Your task to perform on an android device: Search for razer blade on bestbuy, select the first entry, add it to the cart, then select checkout. Image 0: 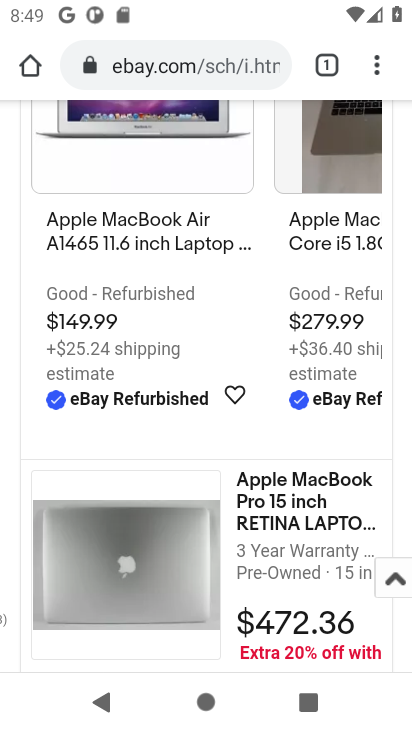
Step 0: click (263, 525)
Your task to perform on an android device: Search for razer blade on bestbuy, select the first entry, add it to the cart, then select checkout. Image 1: 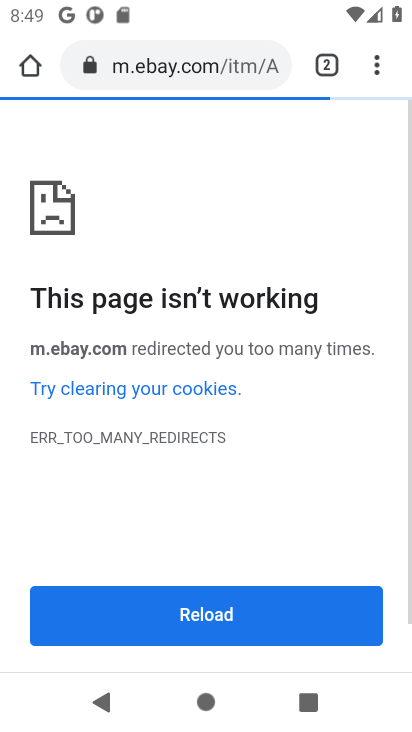
Step 1: click (209, 60)
Your task to perform on an android device: Search for razer blade on bestbuy, select the first entry, add it to the cart, then select checkout. Image 2: 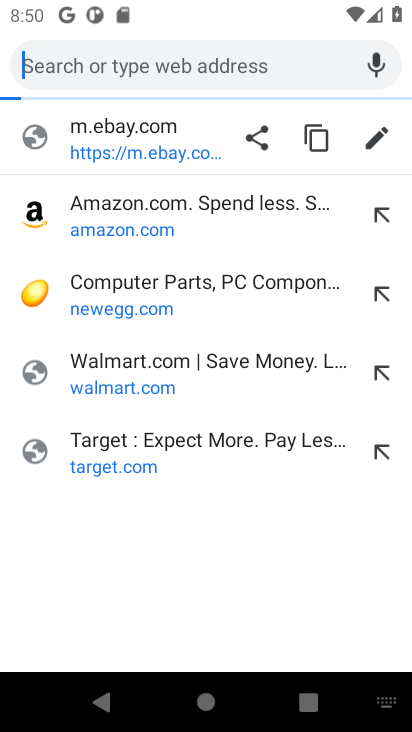
Step 2: type "bestbuy"
Your task to perform on an android device: Search for razer blade on bestbuy, select the first entry, add it to the cart, then select checkout. Image 3: 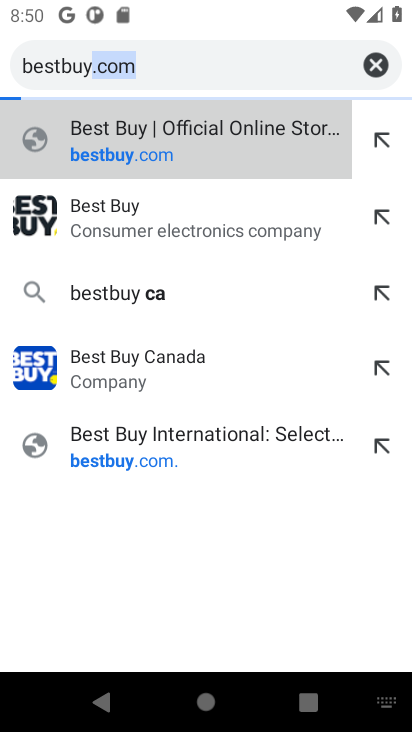
Step 3: press enter
Your task to perform on an android device: Search for razer blade on bestbuy, select the first entry, add it to the cart, then select checkout. Image 4: 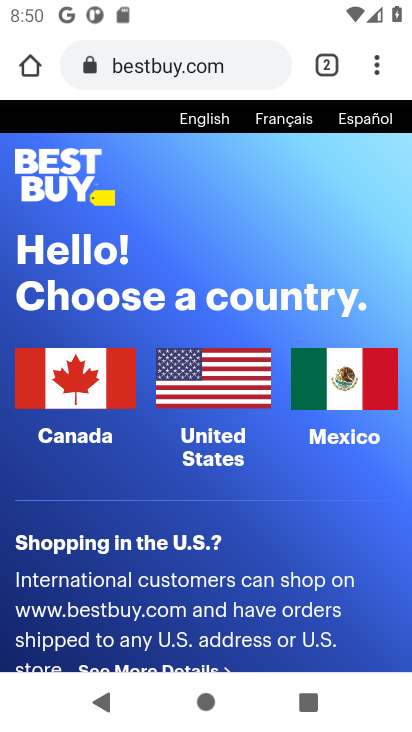
Step 4: click (227, 366)
Your task to perform on an android device: Search for razer blade on bestbuy, select the first entry, add it to the cart, then select checkout. Image 5: 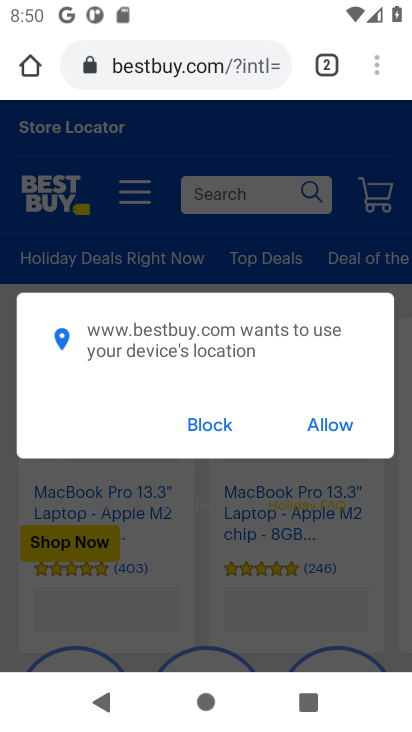
Step 5: click (212, 423)
Your task to perform on an android device: Search for razer blade on bestbuy, select the first entry, add it to the cart, then select checkout. Image 6: 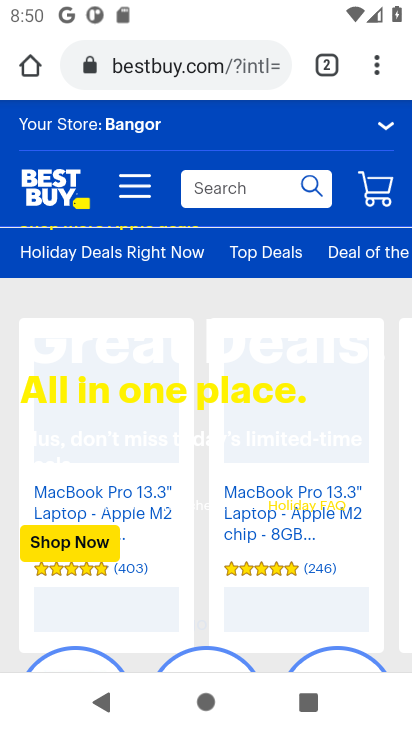
Step 6: click (307, 189)
Your task to perform on an android device: Search for razer blade on bestbuy, select the first entry, add it to the cart, then select checkout. Image 7: 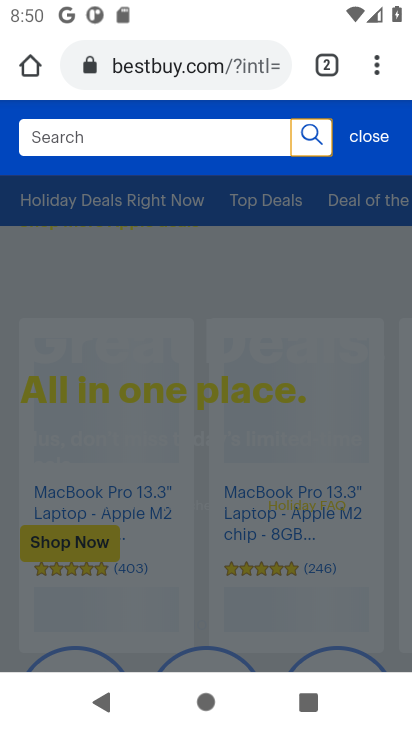
Step 7: type "razer blade"
Your task to perform on an android device: Search for razer blade on bestbuy, select the first entry, add it to the cart, then select checkout. Image 8: 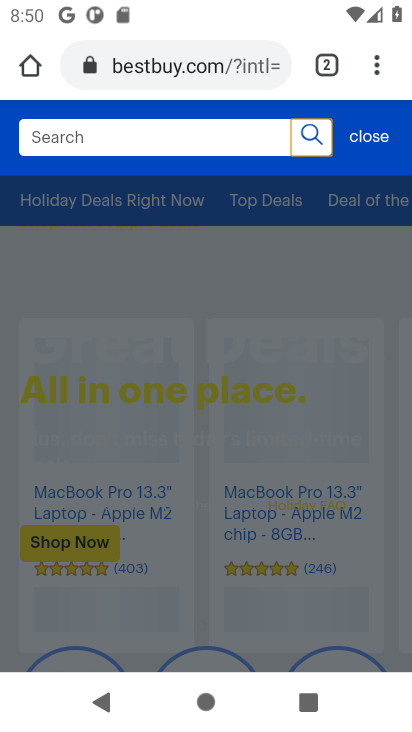
Step 8: press enter
Your task to perform on an android device: Search for razer blade on bestbuy, select the first entry, add it to the cart, then select checkout. Image 9: 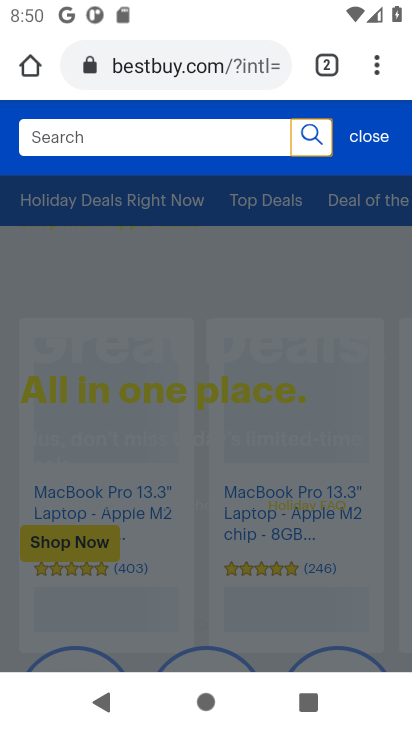
Step 9: click (243, 136)
Your task to perform on an android device: Search for razer blade on bestbuy, select the first entry, add it to the cart, then select checkout. Image 10: 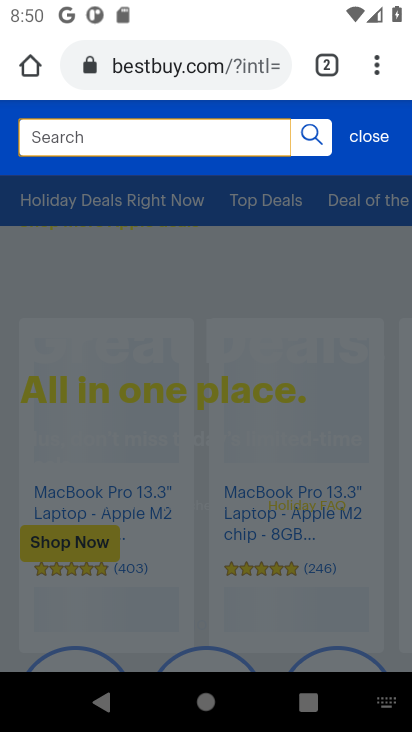
Step 10: type "razer blade"
Your task to perform on an android device: Search for razer blade on bestbuy, select the first entry, add it to the cart, then select checkout. Image 11: 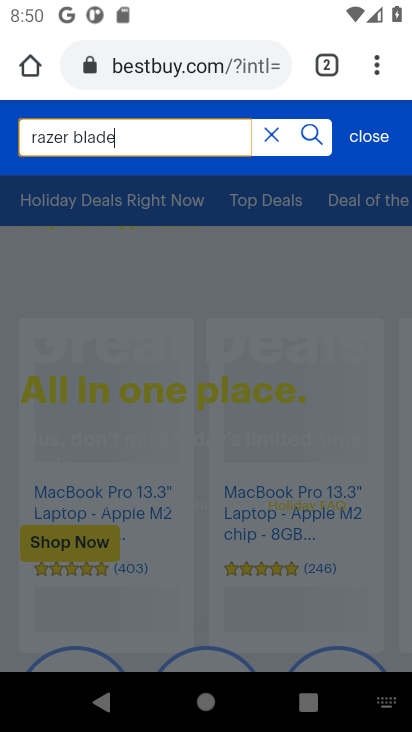
Step 11: press enter
Your task to perform on an android device: Search for razer blade on bestbuy, select the first entry, add it to the cart, then select checkout. Image 12: 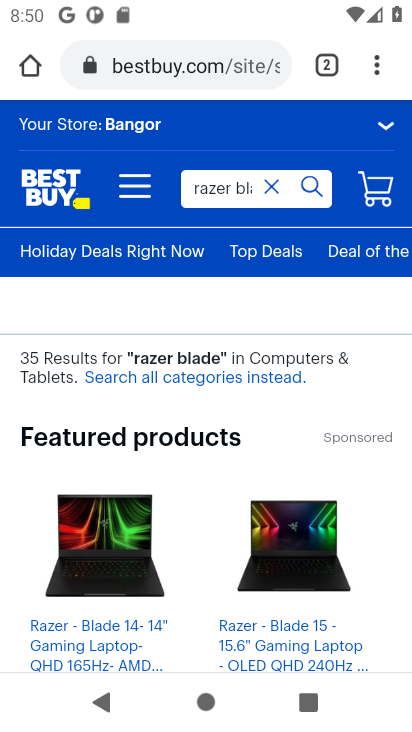
Step 12: click (127, 545)
Your task to perform on an android device: Search for razer blade on bestbuy, select the first entry, add it to the cart, then select checkout. Image 13: 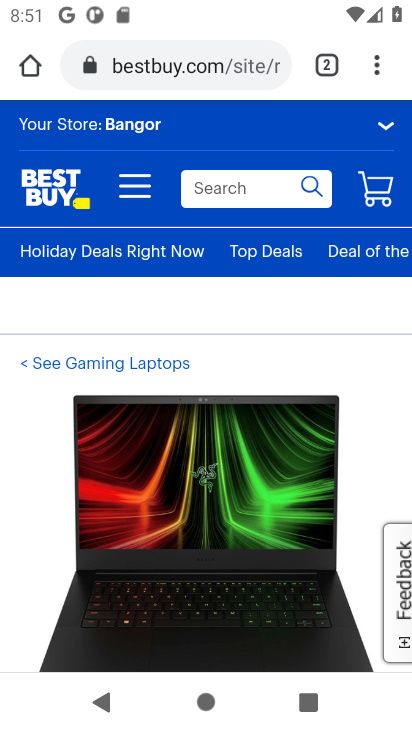
Step 13: drag from (285, 519) to (368, 56)
Your task to perform on an android device: Search for razer blade on bestbuy, select the first entry, add it to the cart, then select checkout. Image 14: 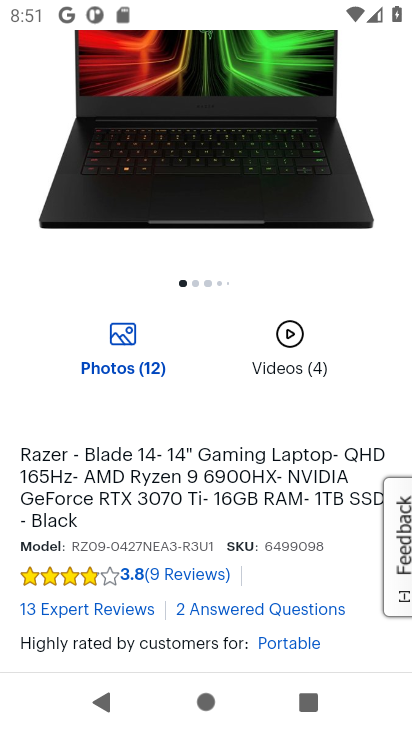
Step 14: drag from (306, 565) to (334, 195)
Your task to perform on an android device: Search for razer blade on bestbuy, select the first entry, add it to the cart, then select checkout. Image 15: 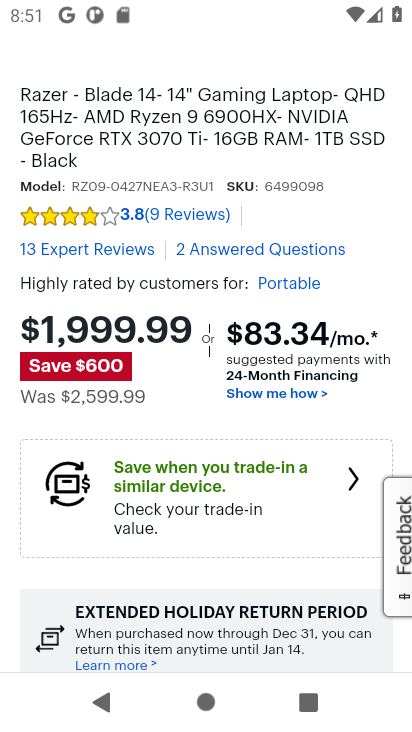
Step 15: drag from (323, 570) to (286, 90)
Your task to perform on an android device: Search for razer blade on bestbuy, select the first entry, add it to the cart, then select checkout. Image 16: 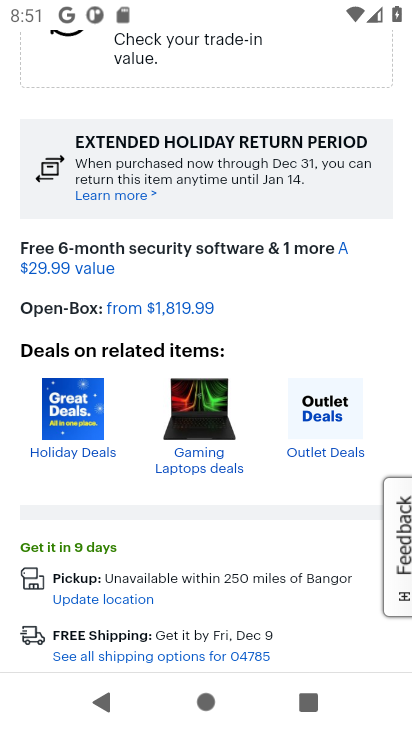
Step 16: drag from (298, 465) to (293, 86)
Your task to perform on an android device: Search for razer blade on bestbuy, select the first entry, add it to the cart, then select checkout. Image 17: 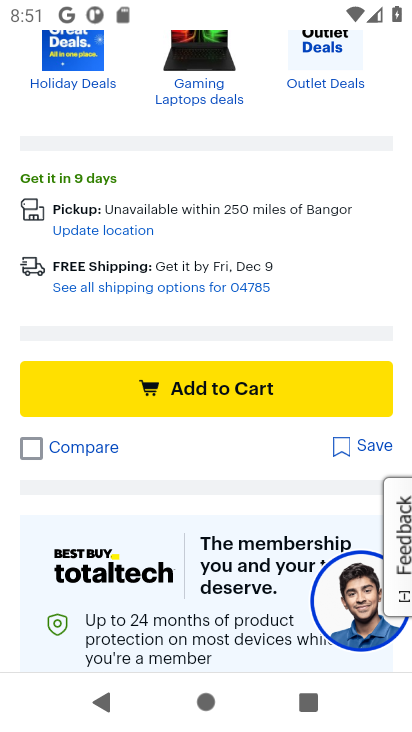
Step 17: click (249, 389)
Your task to perform on an android device: Search for razer blade on bestbuy, select the first entry, add it to the cart, then select checkout. Image 18: 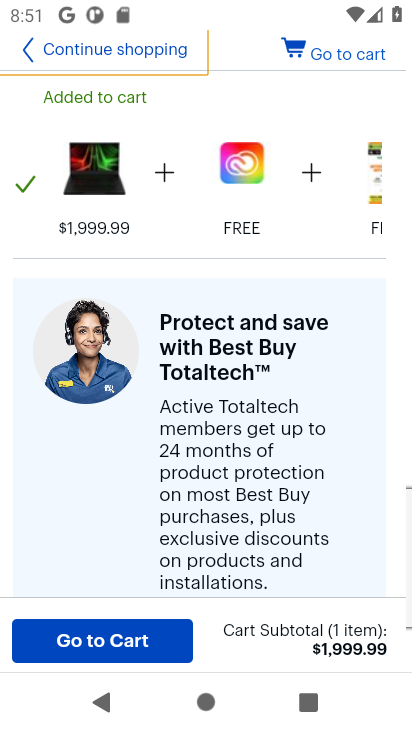
Step 18: click (126, 642)
Your task to perform on an android device: Search for razer blade on bestbuy, select the first entry, add it to the cart, then select checkout. Image 19: 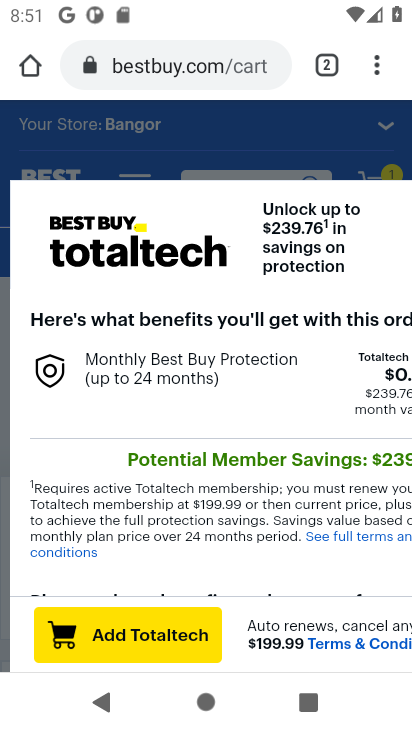
Step 19: click (207, 583)
Your task to perform on an android device: Search for razer blade on bestbuy, select the first entry, add it to the cart, then select checkout. Image 20: 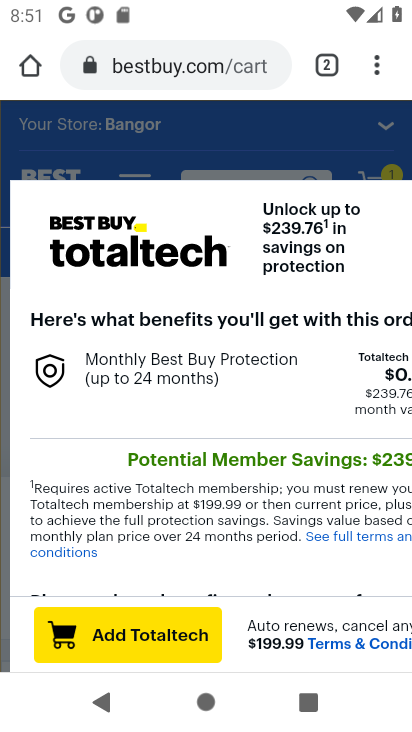
Step 20: drag from (269, 526) to (199, 577)
Your task to perform on an android device: Search for razer blade on bestbuy, select the first entry, add it to the cart, then select checkout. Image 21: 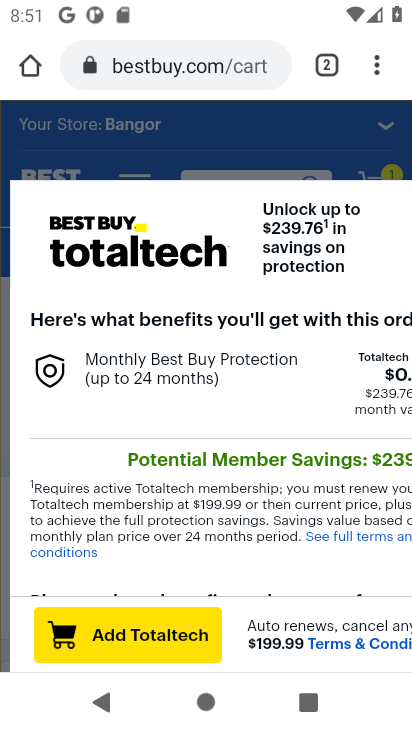
Step 21: drag from (347, 235) to (17, 285)
Your task to perform on an android device: Search for razer blade on bestbuy, select the first entry, add it to the cart, then select checkout. Image 22: 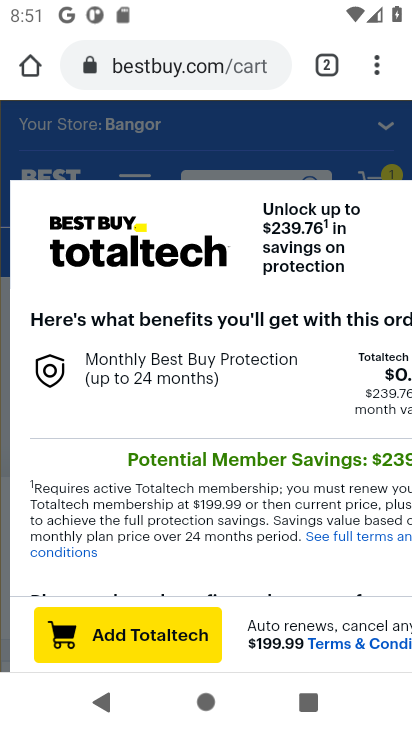
Step 22: click (271, 138)
Your task to perform on an android device: Search for razer blade on bestbuy, select the first entry, add it to the cart, then select checkout. Image 23: 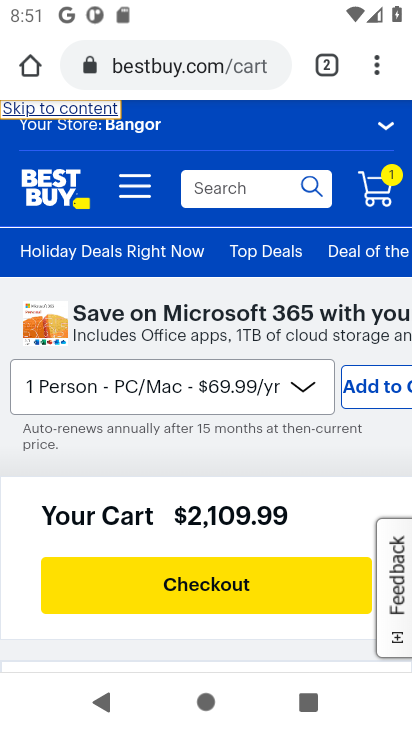
Step 23: click (204, 581)
Your task to perform on an android device: Search for razer blade on bestbuy, select the first entry, add it to the cart, then select checkout. Image 24: 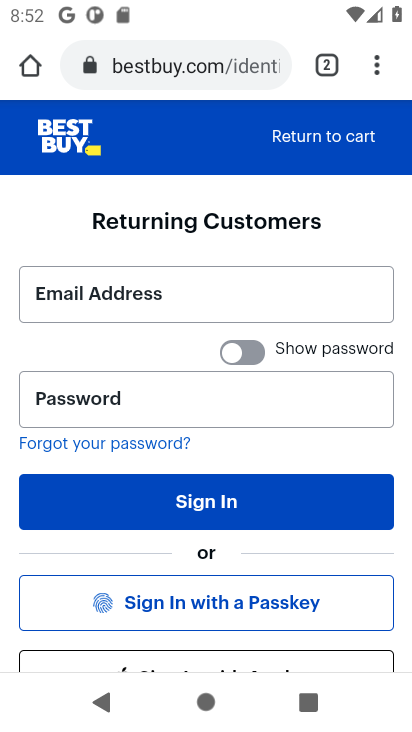
Step 24: task complete